Your task to perform on an android device: Open calendar and show me the third week of next month Image 0: 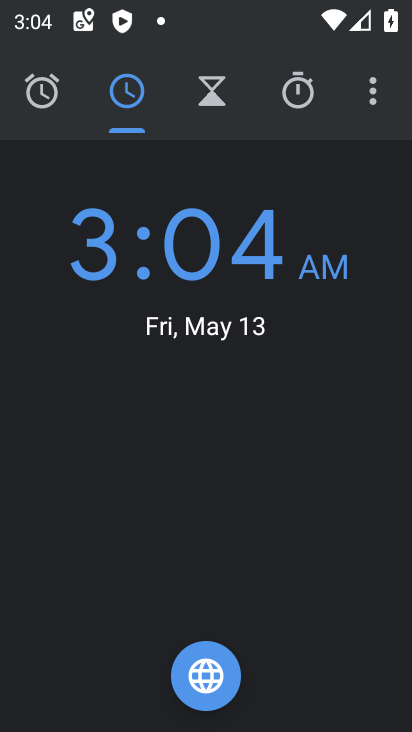
Step 0: press home button
Your task to perform on an android device: Open calendar and show me the third week of next month Image 1: 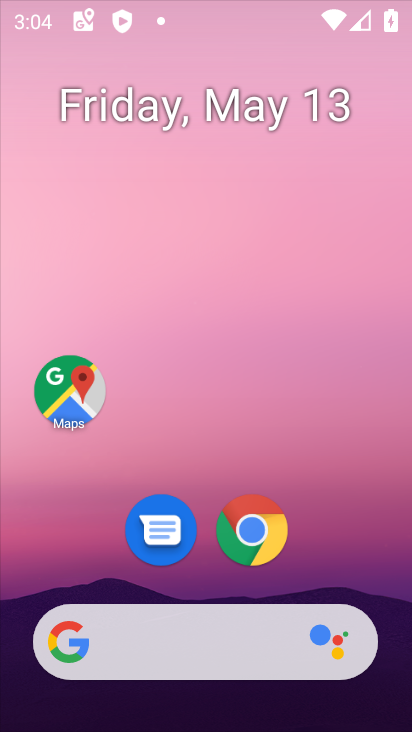
Step 1: drag from (344, 528) to (321, 71)
Your task to perform on an android device: Open calendar and show me the third week of next month Image 2: 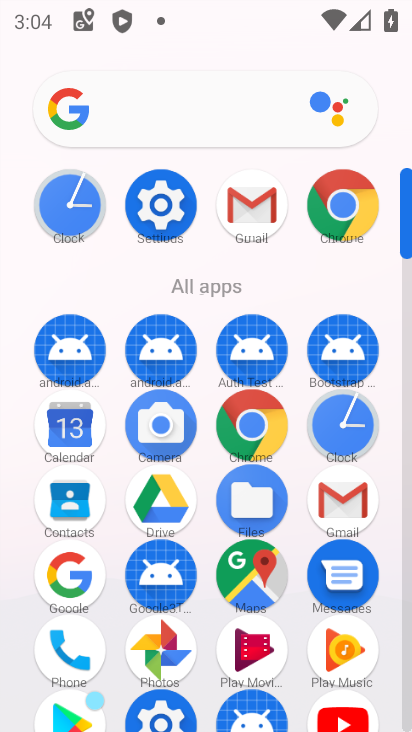
Step 2: click (73, 432)
Your task to perform on an android device: Open calendar and show me the third week of next month Image 3: 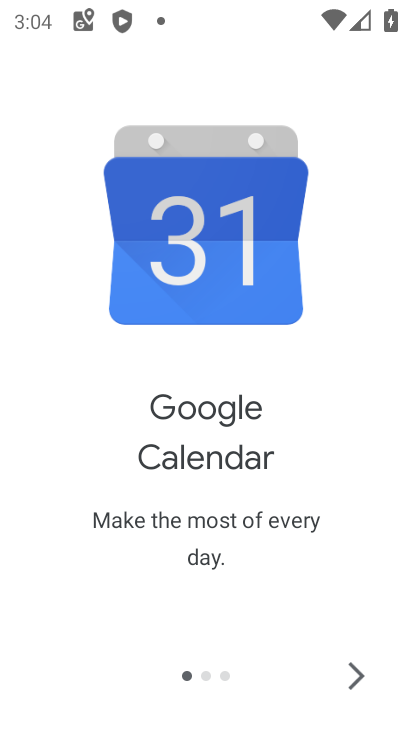
Step 3: click (354, 660)
Your task to perform on an android device: Open calendar and show me the third week of next month Image 4: 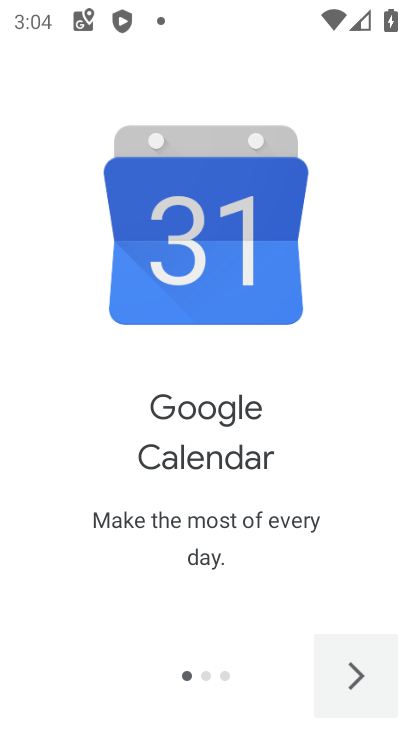
Step 4: click (354, 658)
Your task to perform on an android device: Open calendar and show me the third week of next month Image 5: 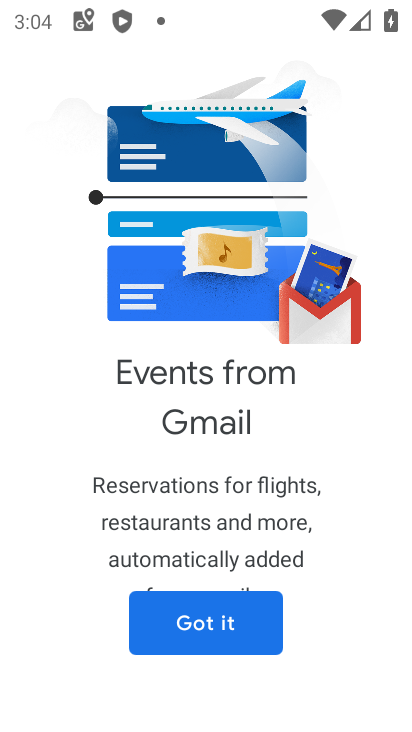
Step 5: click (351, 654)
Your task to perform on an android device: Open calendar and show me the third week of next month Image 6: 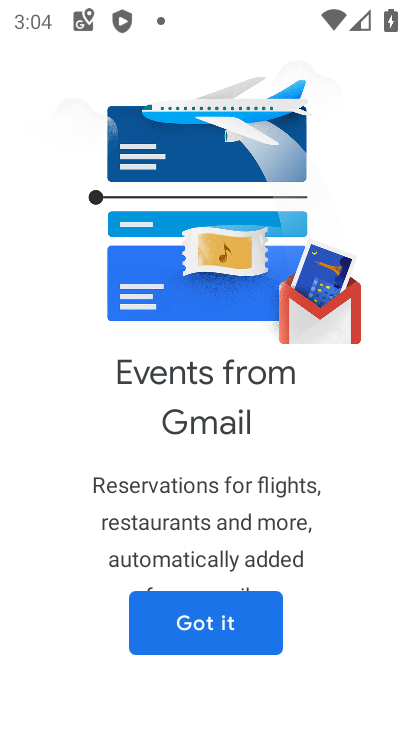
Step 6: click (226, 634)
Your task to perform on an android device: Open calendar and show me the third week of next month Image 7: 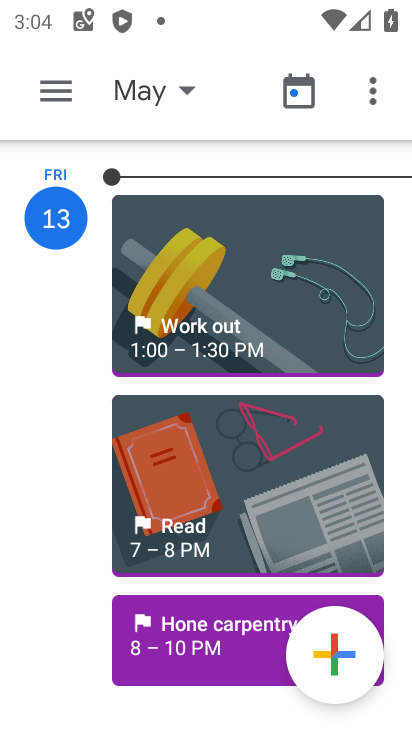
Step 7: click (376, 82)
Your task to perform on an android device: Open calendar and show me the third week of next month Image 8: 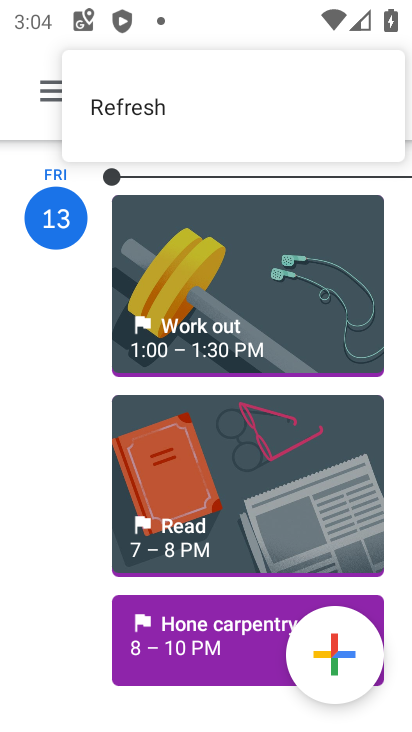
Step 8: click (52, 346)
Your task to perform on an android device: Open calendar and show me the third week of next month Image 9: 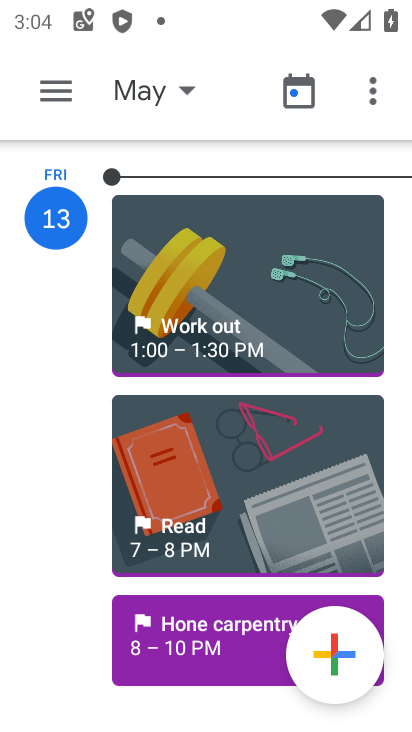
Step 9: click (129, 85)
Your task to perform on an android device: Open calendar and show me the third week of next month Image 10: 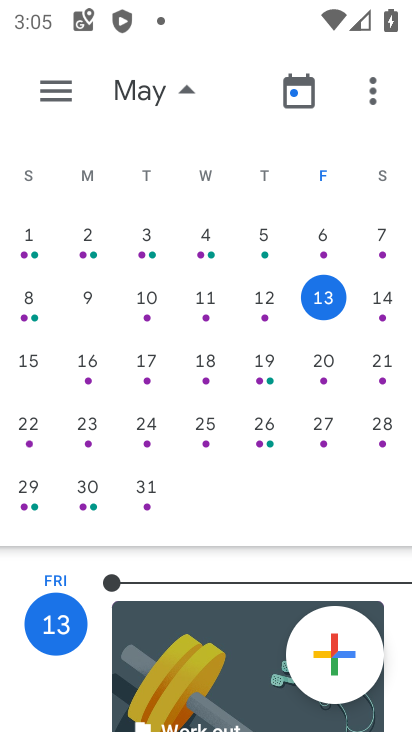
Step 10: drag from (366, 306) to (0, 327)
Your task to perform on an android device: Open calendar and show me the third week of next month Image 11: 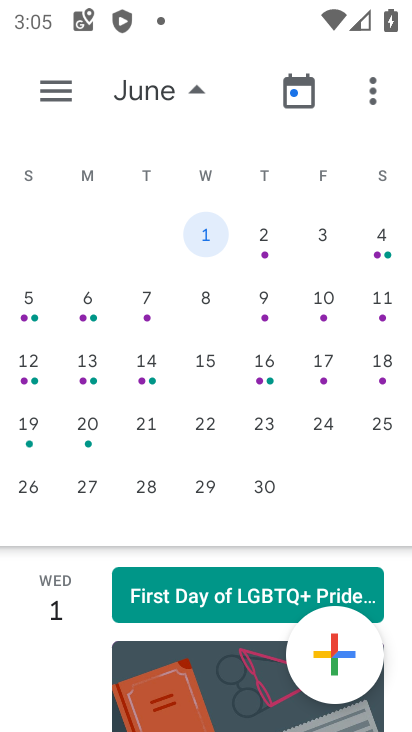
Step 11: click (30, 424)
Your task to perform on an android device: Open calendar and show me the third week of next month Image 12: 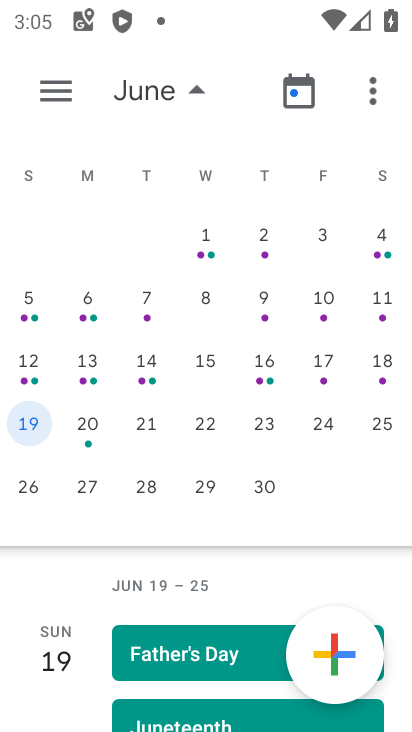
Step 12: task complete